Your task to perform on an android device: Open Google Chrome and click the shortcut for Amazon.com Image 0: 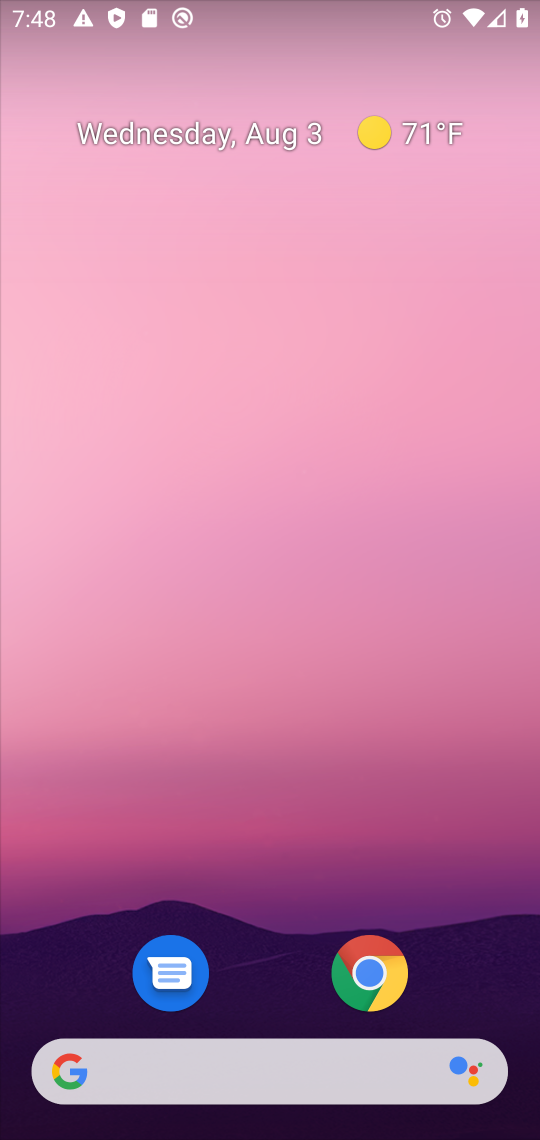
Step 0: click (360, 979)
Your task to perform on an android device: Open Google Chrome and click the shortcut for Amazon.com Image 1: 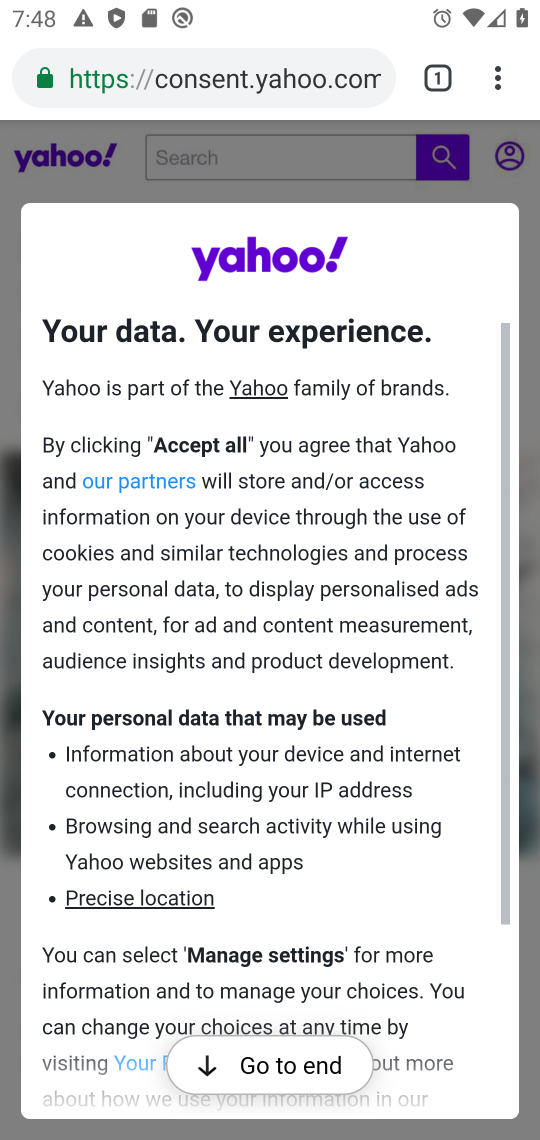
Step 1: press back button
Your task to perform on an android device: Open Google Chrome and click the shortcut for Amazon.com Image 2: 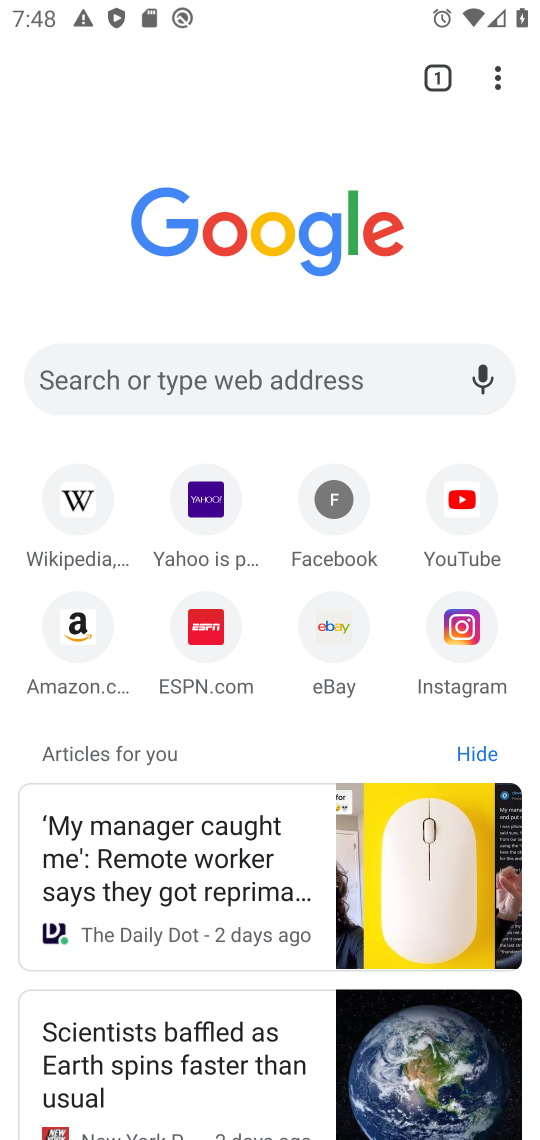
Step 2: click (66, 623)
Your task to perform on an android device: Open Google Chrome and click the shortcut for Amazon.com Image 3: 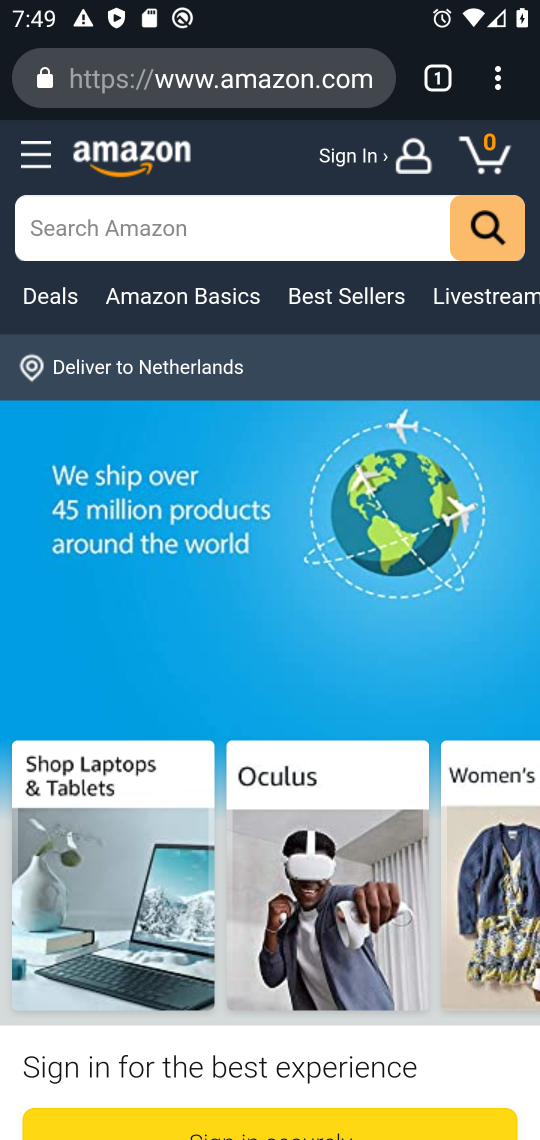
Step 3: task complete